Your task to perform on an android device: Open Google Image 0: 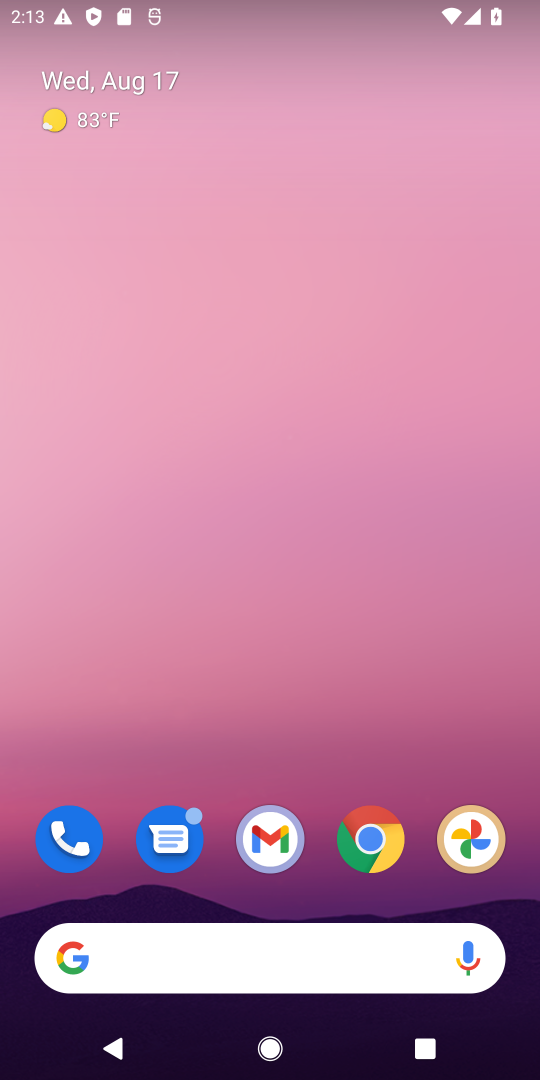
Step 0: drag from (304, 851) to (287, 206)
Your task to perform on an android device: Open Google Image 1: 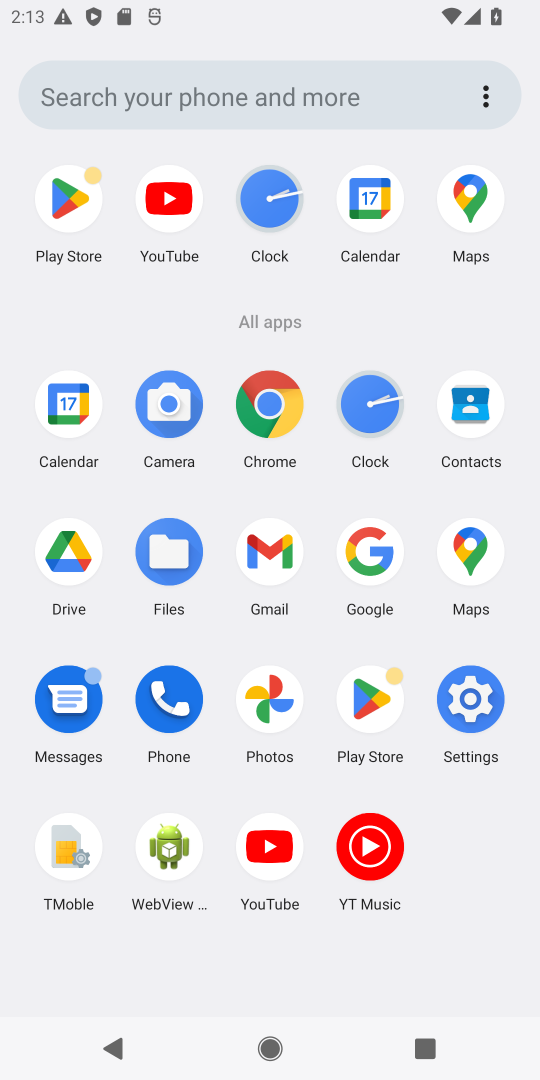
Step 1: click (376, 547)
Your task to perform on an android device: Open Google Image 2: 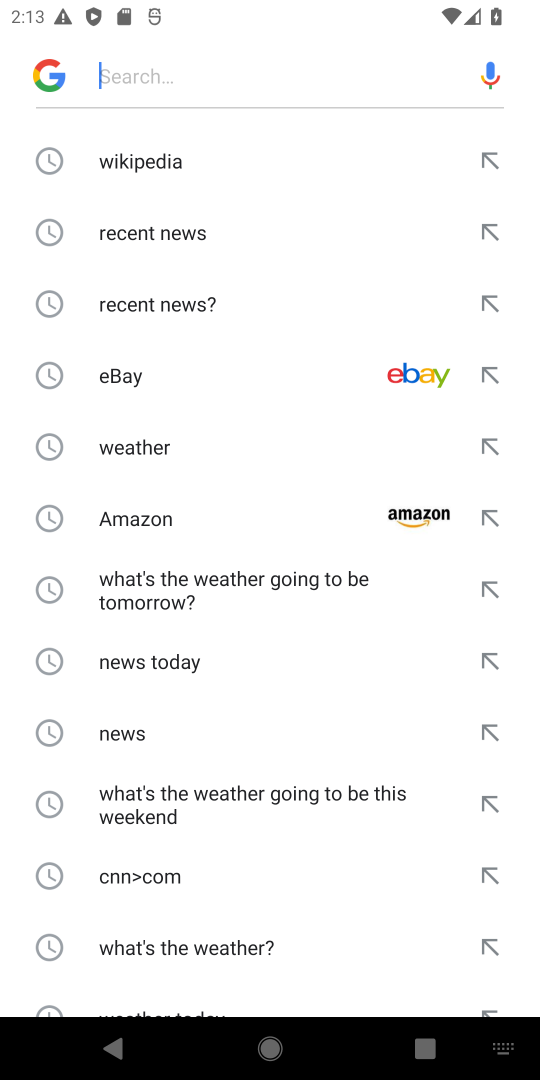
Step 2: task complete